Your task to perform on an android device: see creations saved in the google photos Image 0: 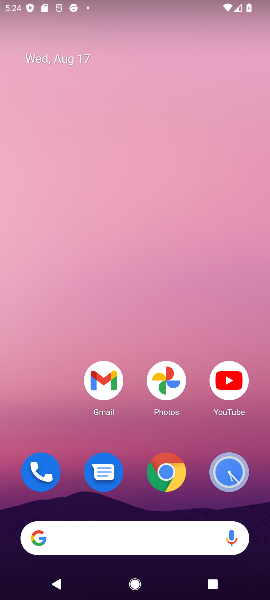
Step 0: click (165, 403)
Your task to perform on an android device: see creations saved in the google photos Image 1: 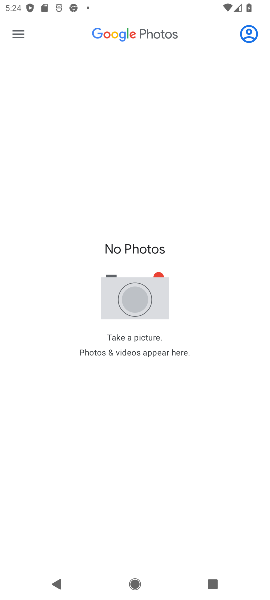
Step 1: click (121, 40)
Your task to perform on an android device: see creations saved in the google photos Image 2: 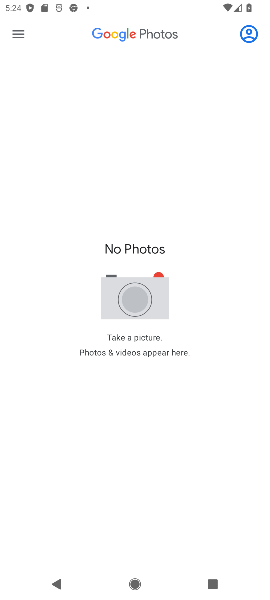
Step 2: click (121, 40)
Your task to perform on an android device: see creations saved in the google photos Image 3: 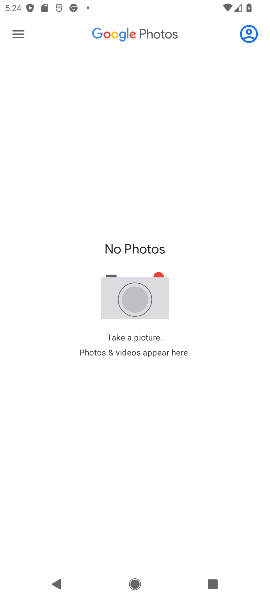
Step 3: click (121, 40)
Your task to perform on an android device: see creations saved in the google photos Image 4: 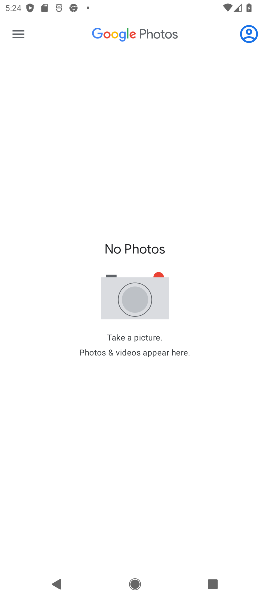
Step 4: click (18, 37)
Your task to perform on an android device: see creations saved in the google photos Image 5: 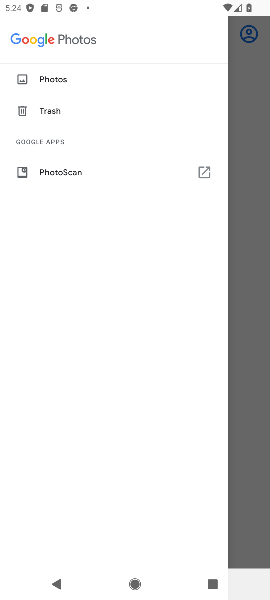
Step 5: click (63, 78)
Your task to perform on an android device: see creations saved in the google photos Image 6: 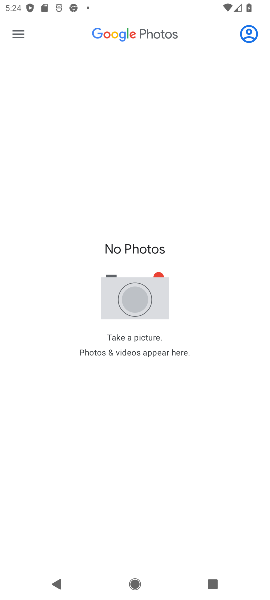
Step 6: click (136, 36)
Your task to perform on an android device: see creations saved in the google photos Image 7: 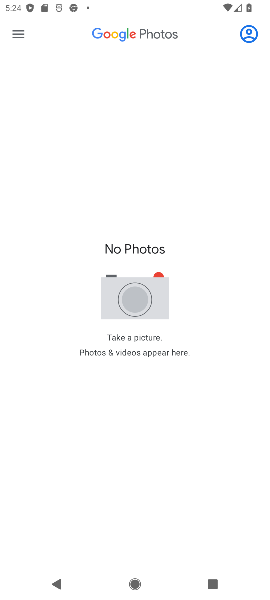
Step 7: click (251, 28)
Your task to perform on an android device: see creations saved in the google photos Image 8: 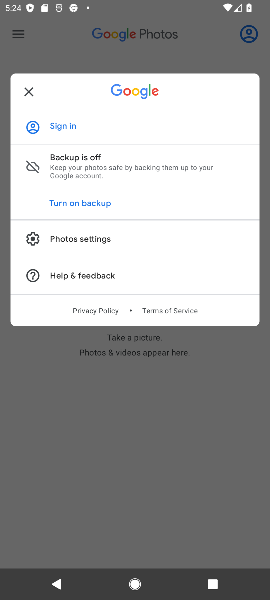
Step 8: click (131, 383)
Your task to perform on an android device: see creations saved in the google photos Image 9: 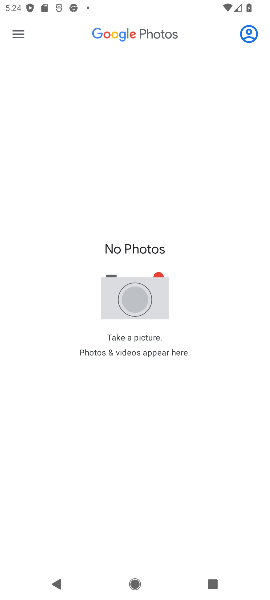
Step 9: task complete